Your task to perform on an android device: make emails show in primary in the gmail app Image 0: 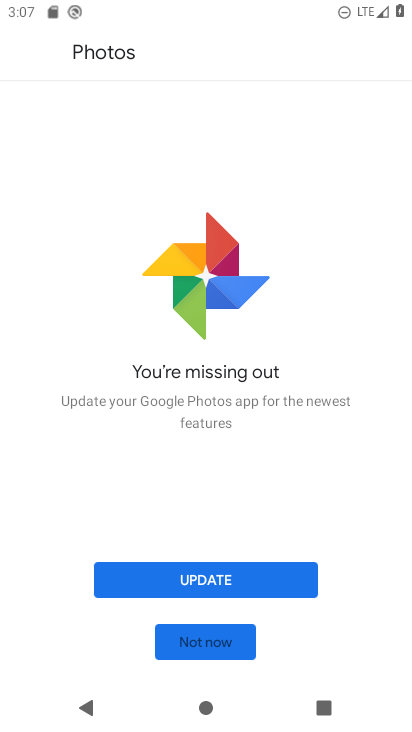
Step 0: press home button
Your task to perform on an android device: make emails show in primary in the gmail app Image 1: 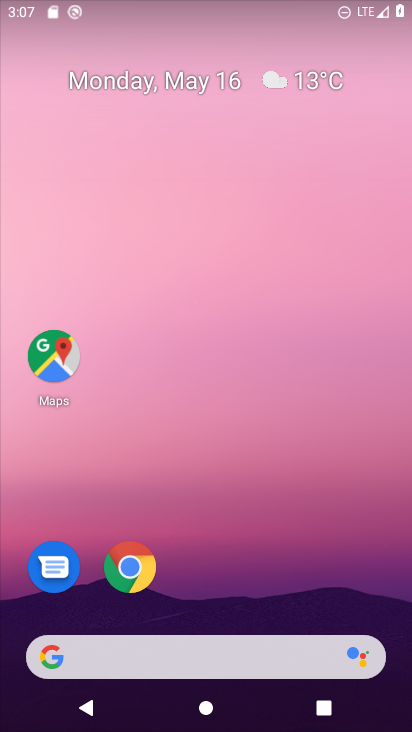
Step 1: drag from (289, 562) to (265, 74)
Your task to perform on an android device: make emails show in primary in the gmail app Image 2: 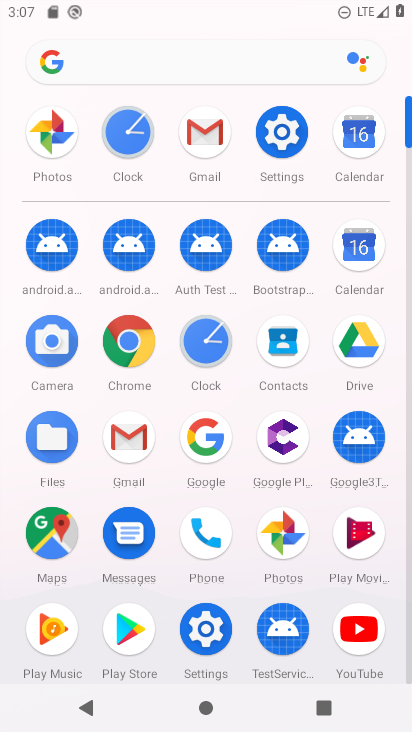
Step 2: click (213, 136)
Your task to perform on an android device: make emails show in primary in the gmail app Image 3: 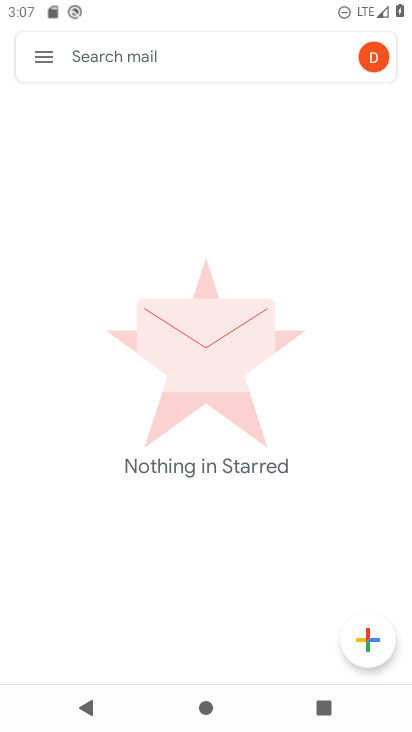
Step 3: click (49, 65)
Your task to perform on an android device: make emails show in primary in the gmail app Image 4: 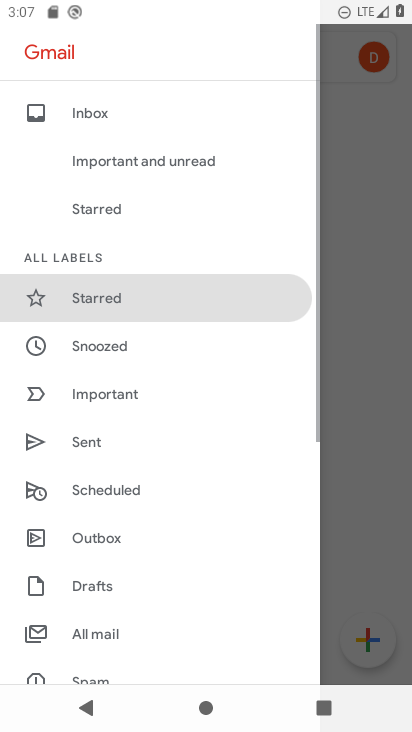
Step 4: drag from (209, 593) to (199, 173)
Your task to perform on an android device: make emails show in primary in the gmail app Image 5: 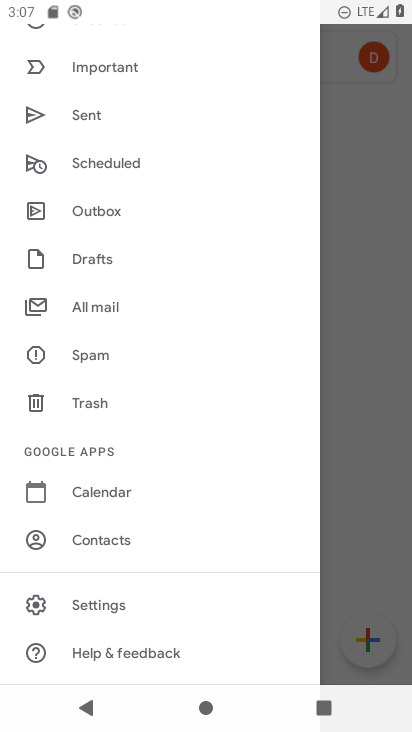
Step 5: click (133, 598)
Your task to perform on an android device: make emails show in primary in the gmail app Image 6: 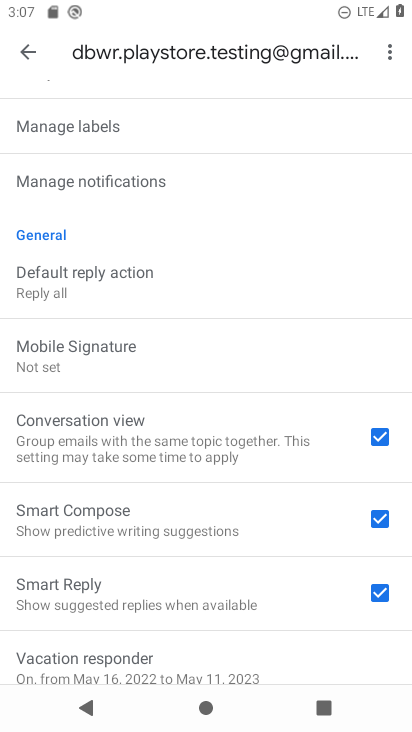
Step 6: drag from (130, 109) to (76, 703)
Your task to perform on an android device: make emails show in primary in the gmail app Image 7: 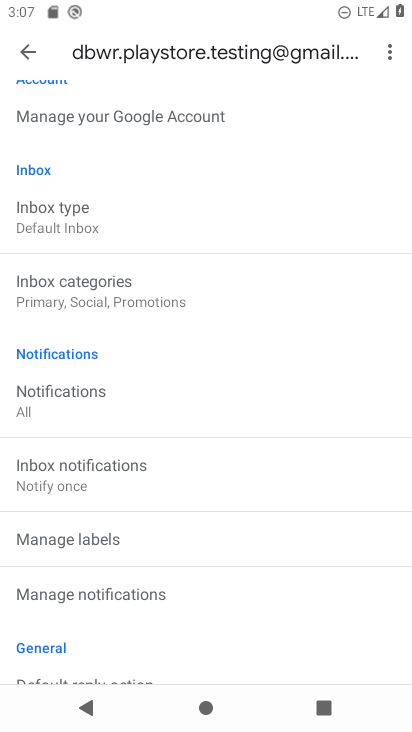
Step 7: click (109, 298)
Your task to perform on an android device: make emails show in primary in the gmail app Image 8: 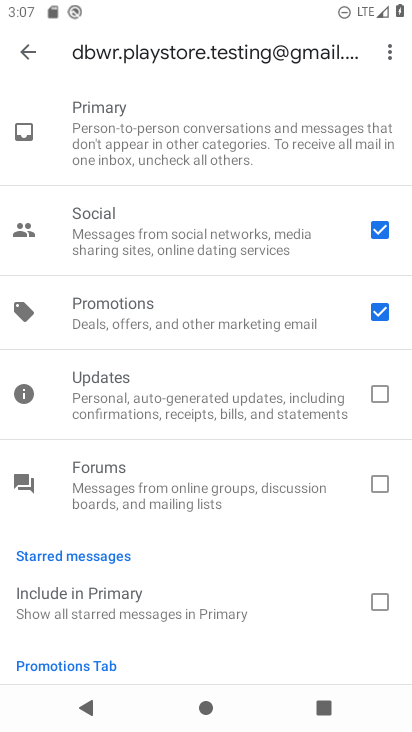
Step 8: click (381, 313)
Your task to perform on an android device: make emails show in primary in the gmail app Image 9: 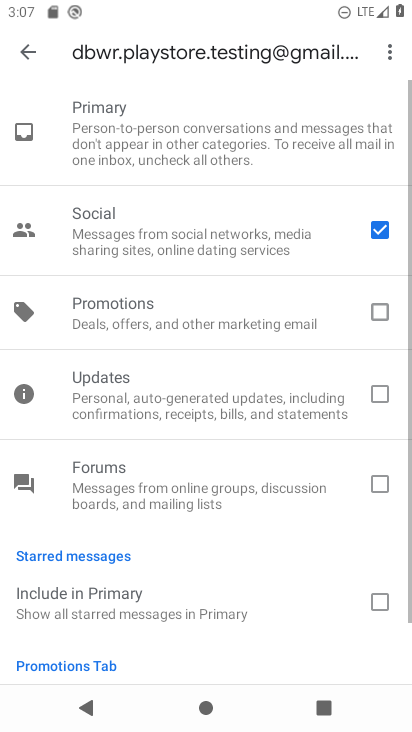
Step 9: click (387, 234)
Your task to perform on an android device: make emails show in primary in the gmail app Image 10: 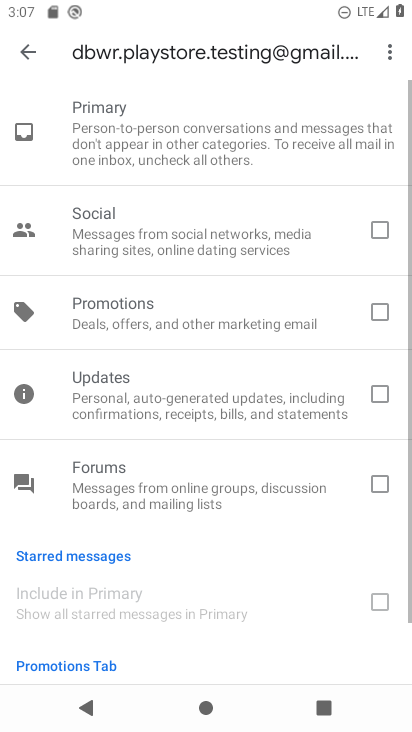
Step 10: click (22, 39)
Your task to perform on an android device: make emails show in primary in the gmail app Image 11: 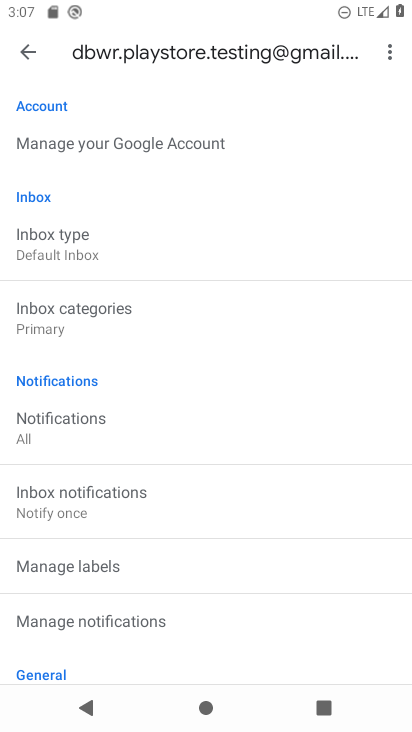
Step 11: task complete